Your task to perform on an android device: Turn on the flashlight Image 0: 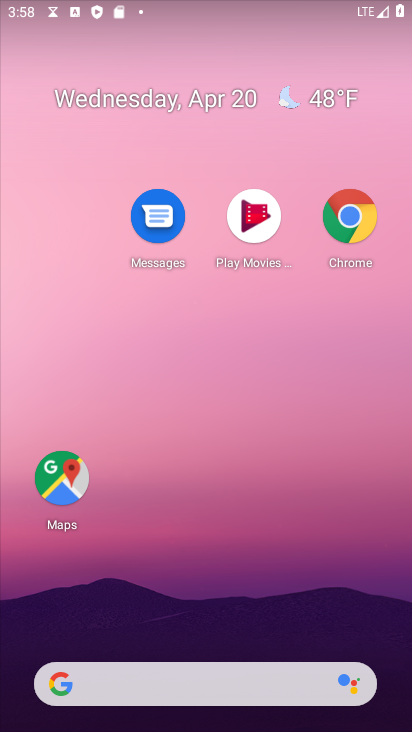
Step 0: task impossible